Your task to perform on an android device: toggle translation in the chrome app Image 0: 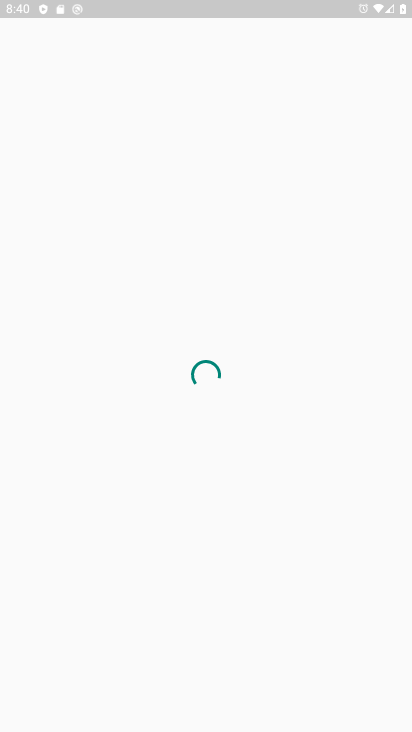
Step 0: press home button
Your task to perform on an android device: toggle translation in the chrome app Image 1: 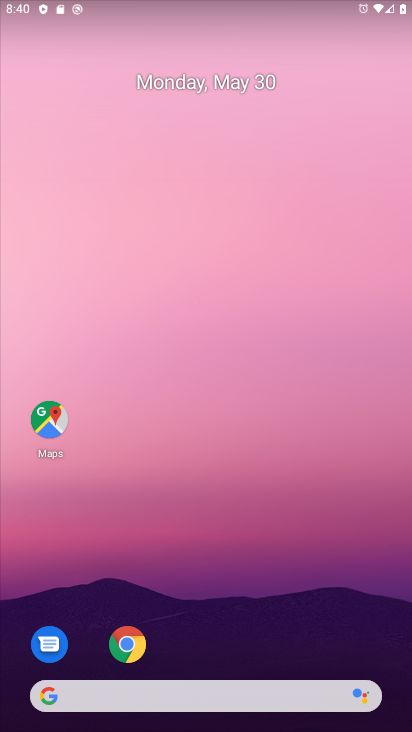
Step 1: click (126, 645)
Your task to perform on an android device: toggle translation in the chrome app Image 2: 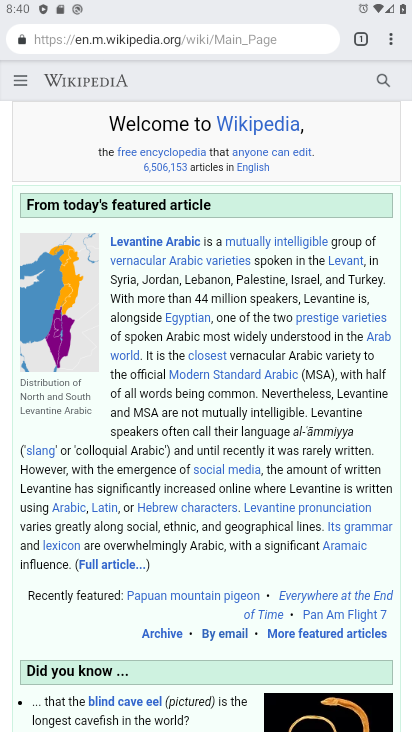
Step 2: click (391, 42)
Your task to perform on an android device: toggle translation in the chrome app Image 3: 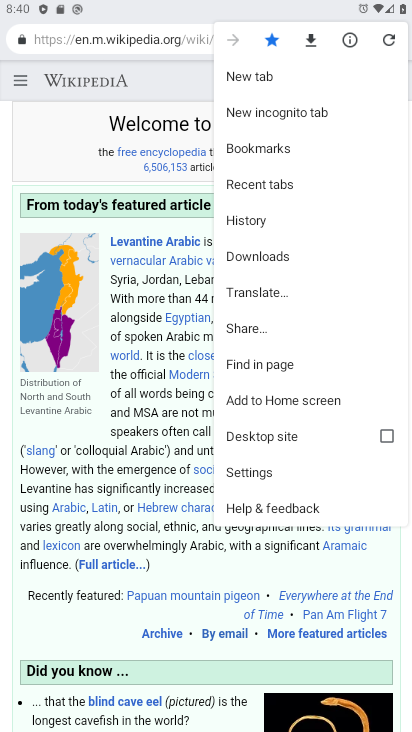
Step 3: click (253, 468)
Your task to perform on an android device: toggle translation in the chrome app Image 4: 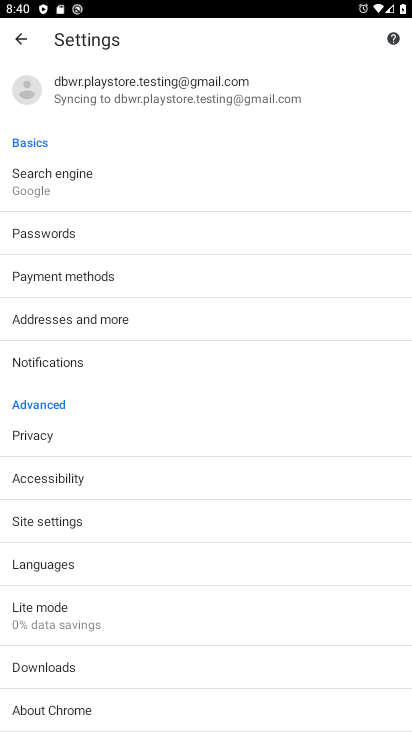
Step 4: click (60, 563)
Your task to perform on an android device: toggle translation in the chrome app Image 5: 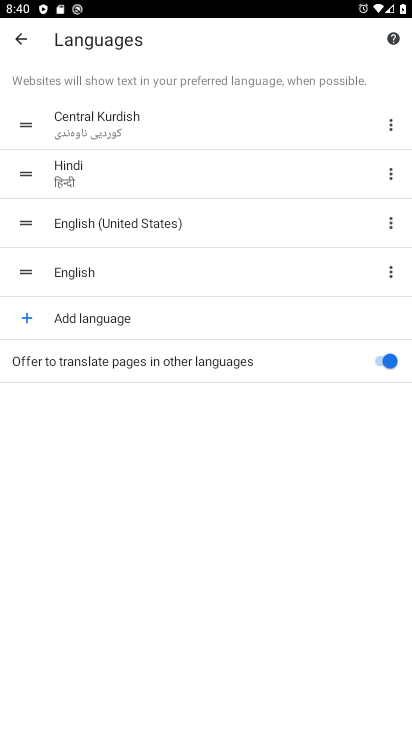
Step 5: click (377, 360)
Your task to perform on an android device: toggle translation in the chrome app Image 6: 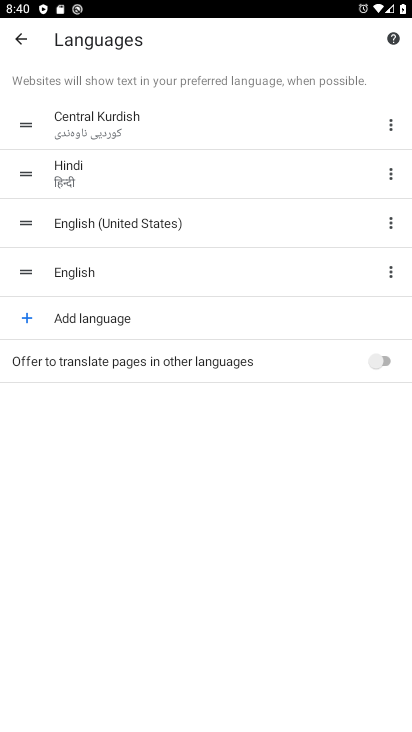
Step 6: task complete